Your task to perform on an android device: What's the weather? Image 0: 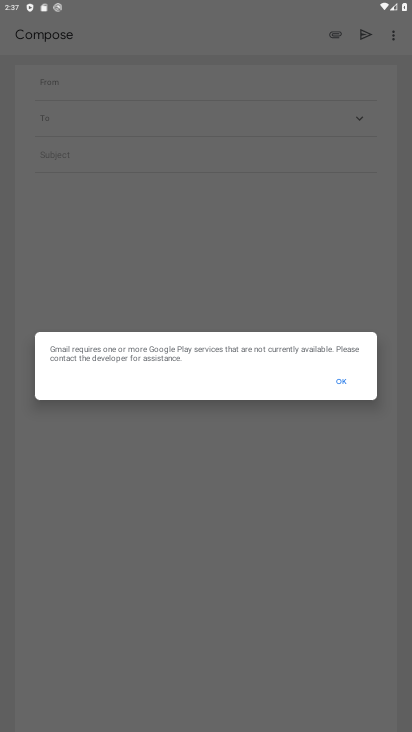
Step 0: drag from (286, 639) to (222, 224)
Your task to perform on an android device: What's the weather? Image 1: 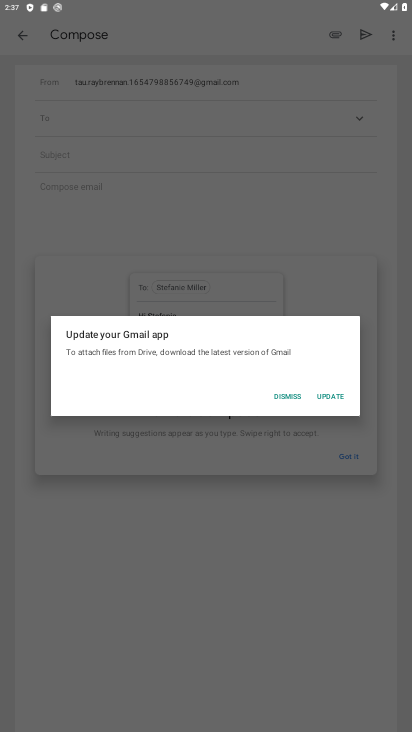
Step 1: click (291, 401)
Your task to perform on an android device: What's the weather? Image 2: 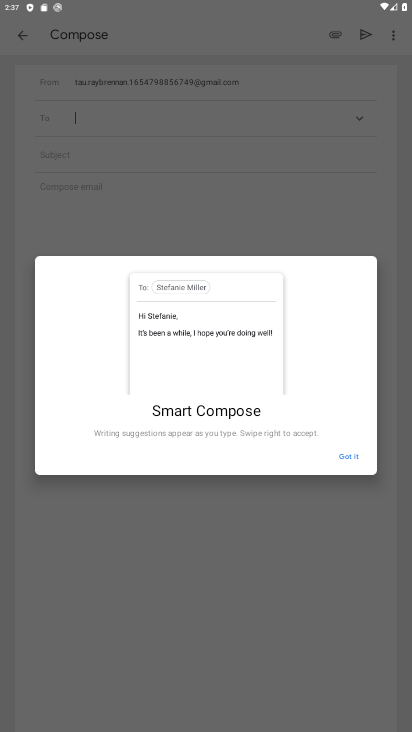
Step 2: press home button
Your task to perform on an android device: What's the weather? Image 3: 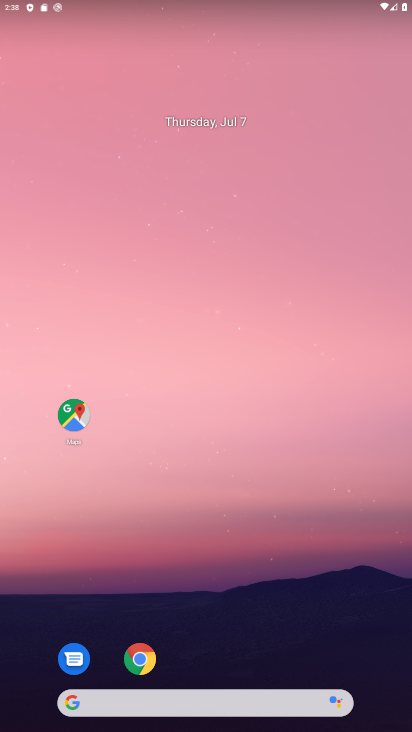
Step 3: click (150, 656)
Your task to perform on an android device: What's the weather? Image 4: 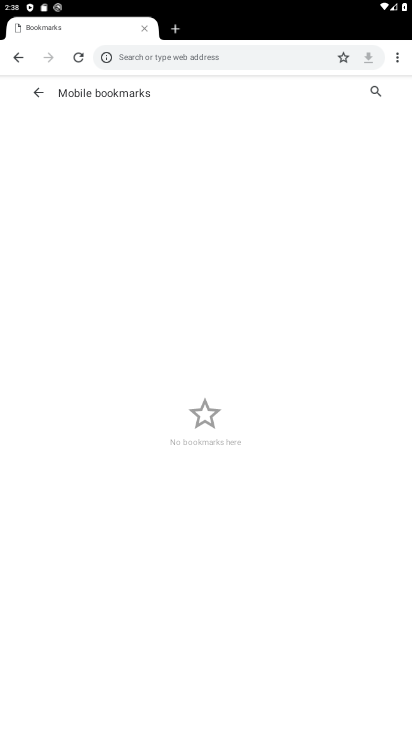
Step 4: click (227, 55)
Your task to perform on an android device: What's the weather? Image 5: 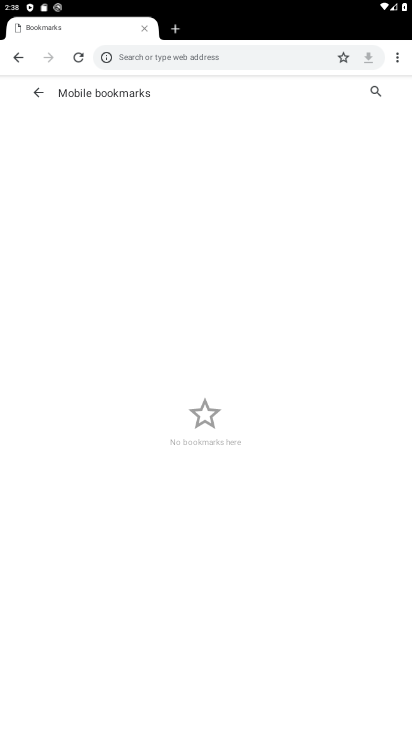
Step 5: click (227, 55)
Your task to perform on an android device: What's the weather? Image 6: 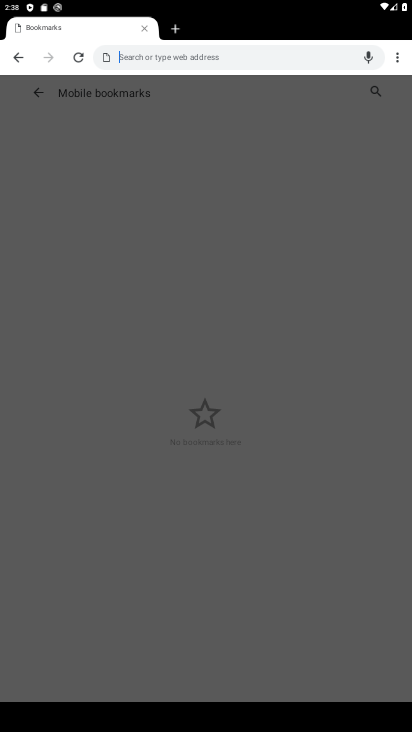
Step 6: type "What's the weather?"
Your task to perform on an android device: What's the weather? Image 7: 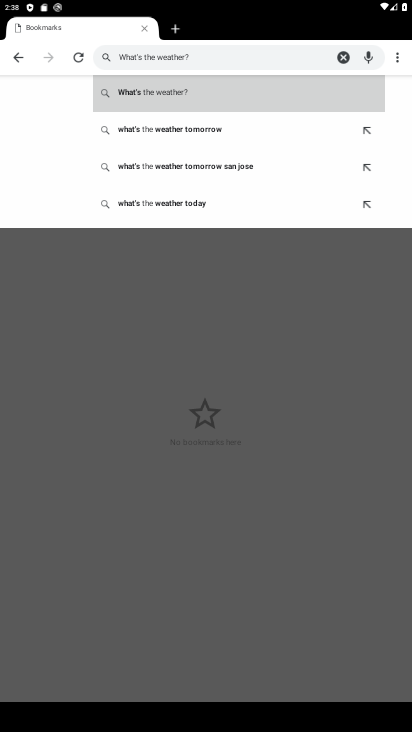
Step 7: click (171, 90)
Your task to perform on an android device: What's the weather? Image 8: 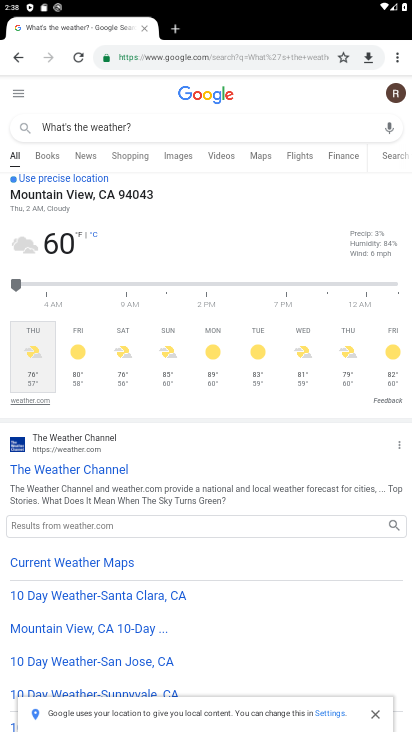
Step 8: task complete